Your task to perform on an android device: What's the weather today? Image 0: 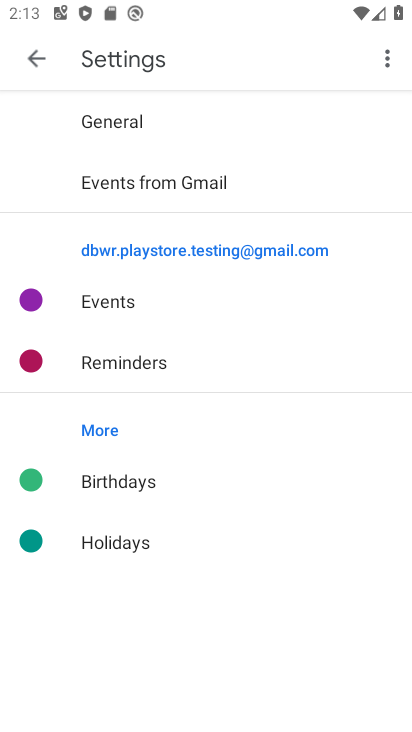
Step 0: press home button
Your task to perform on an android device: What's the weather today? Image 1: 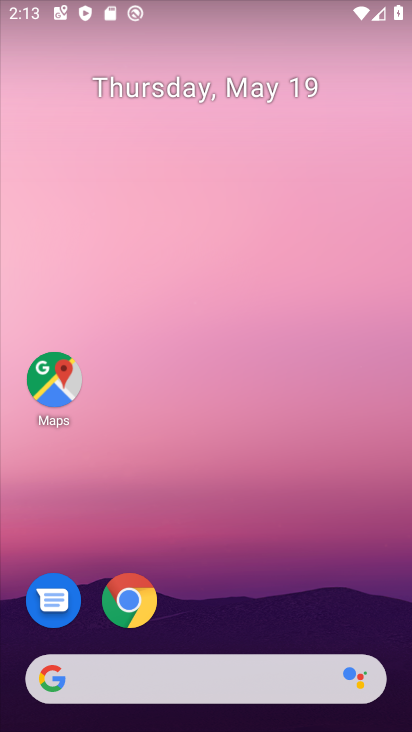
Step 1: drag from (150, 528) to (187, 174)
Your task to perform on an android device: What's the weather today? Image 2: 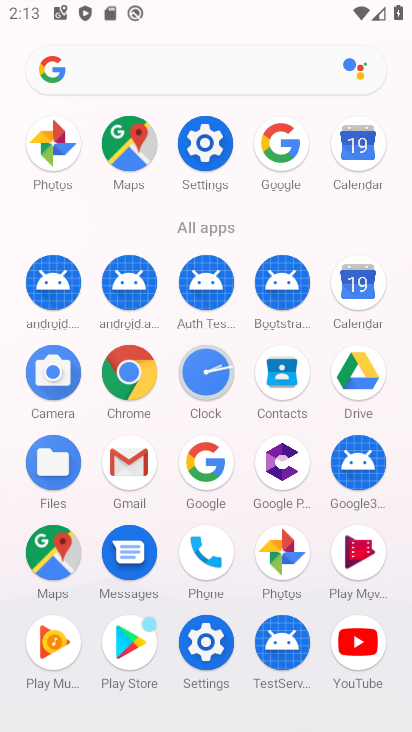
Step 2: click (279, 151)
Your task to perform on an android device: What's the weather today? Image 3: 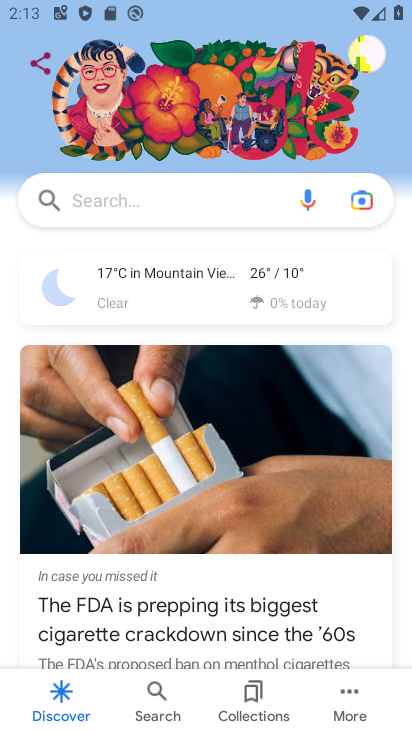
Step 3: click (153, 271)
Your task to perform on an android device: What's the weather today? Image 4: 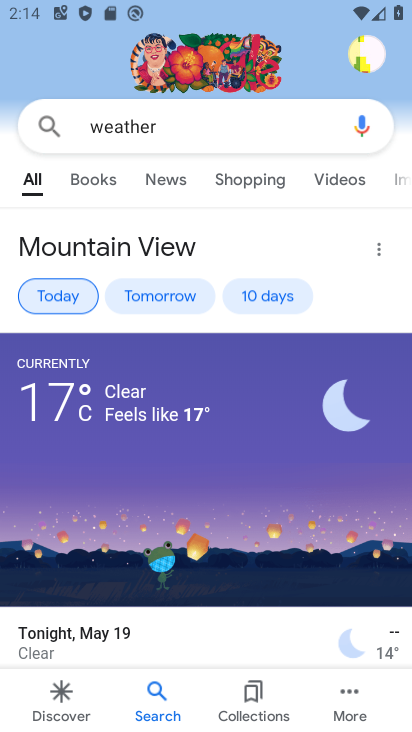
Step 4: task complete